Your task to perform on an android device: add a contact in the contacts app Image 0: 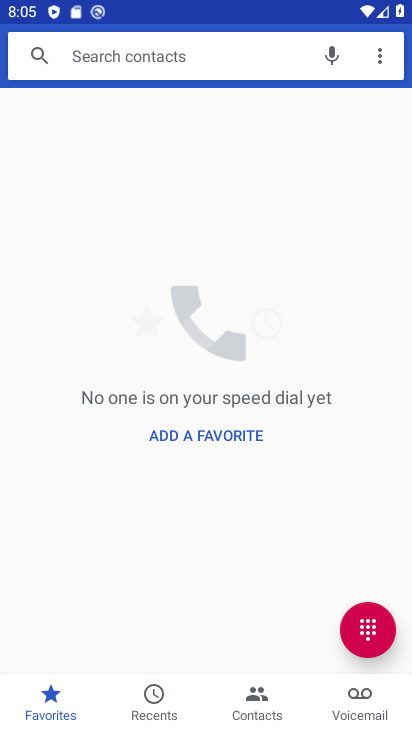
Step 0: press home button
Your task to perform on an android device: add a contact in the contacts app Image 1: 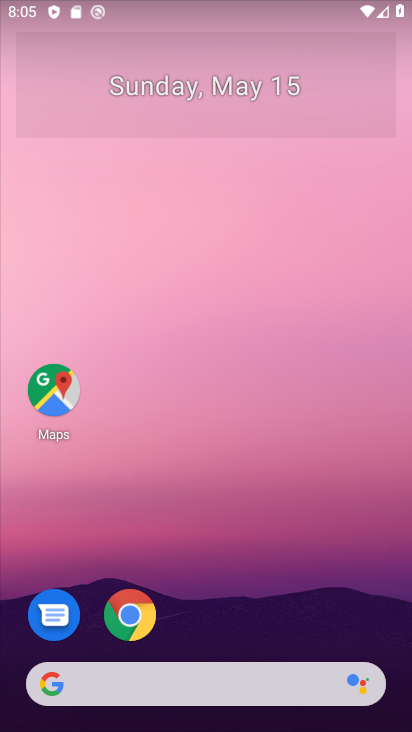
Step 1: drag from (203, 641) to (197, 136)
Your task to perform on an android device: add a contact in the contacts app Image 2: 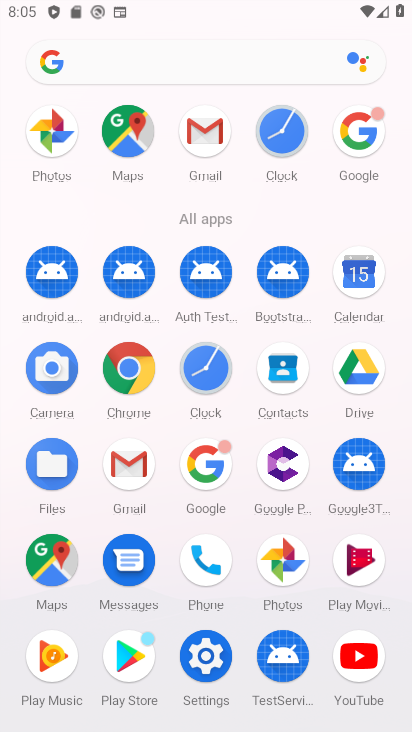
Step 2: click (272, 363)
Your task to perform on an android device: add a contact in the contacts app Image 3: 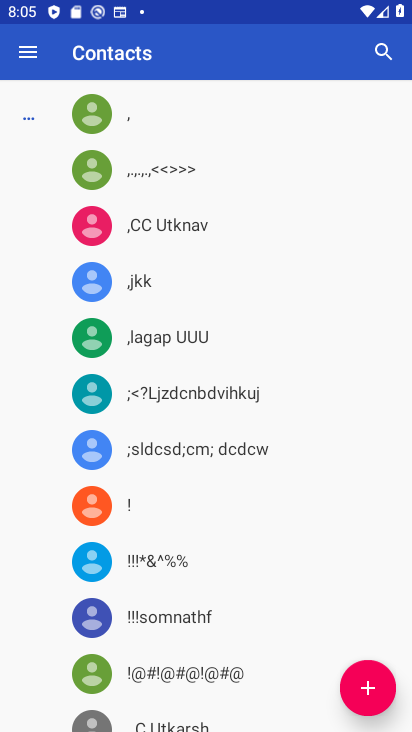
Step 3: click (367, 690)
Your task to perform on an android device: add a contact in the contacts app Image 4: 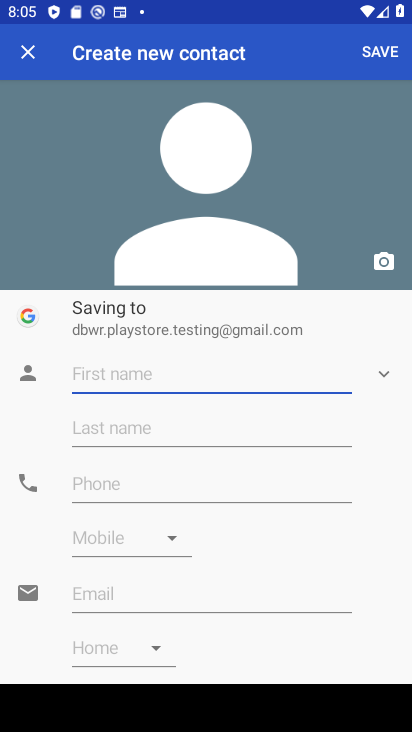
Step 4: type "lucky"
Your task to perform on an android device: add a contact in the contacts app Image 5: 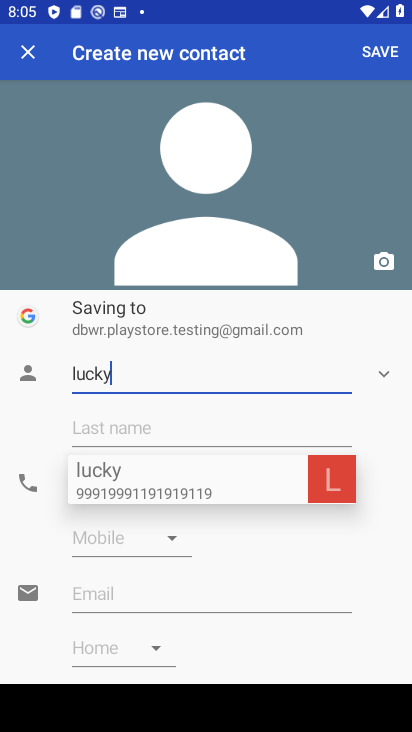
Step 5: click (120, 432)
Your task to perform on an android device: add a contact in the contacts app Image 6: 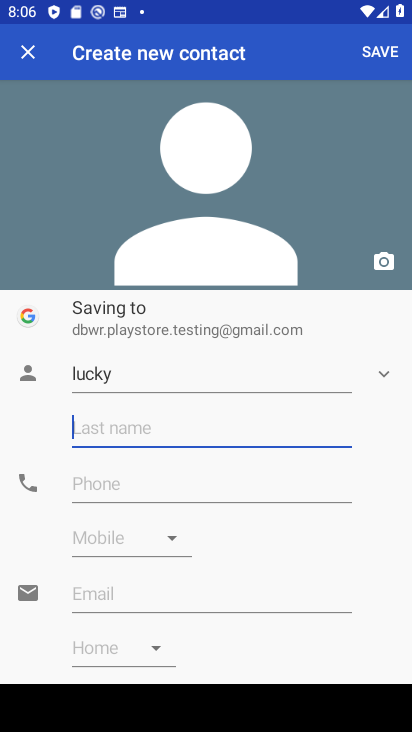
Step 6: type "lupi"
Your task to perform on an android device: add a contact in the contacts app Image 7: 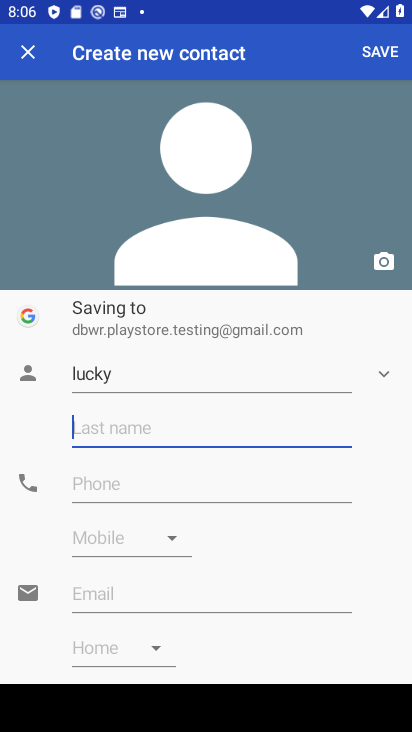
Step 7: click (101, 473)
Your task to perform on an android device: add a contact in the contacts app Image 8: 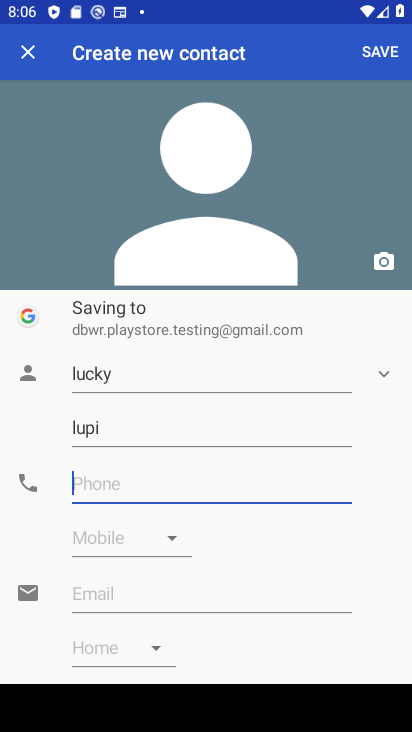
Step 8: type "7876757473"
Your task to perform on an android device: add a contact in the contacts app Image 9: 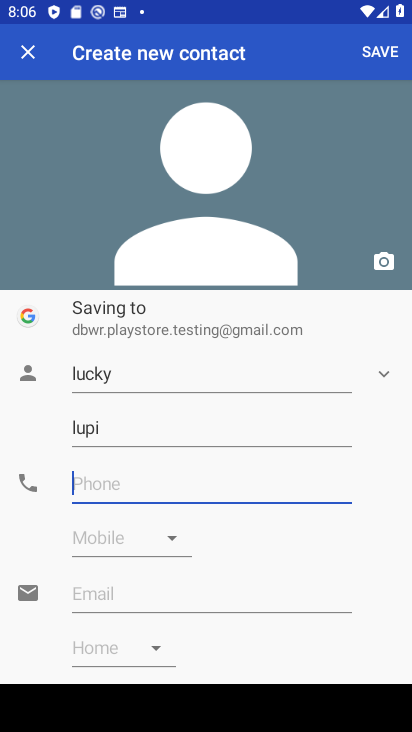
Step 9: click (110, 481)
Your task to perform on an android device: add a contact in the contacts app Image 10: 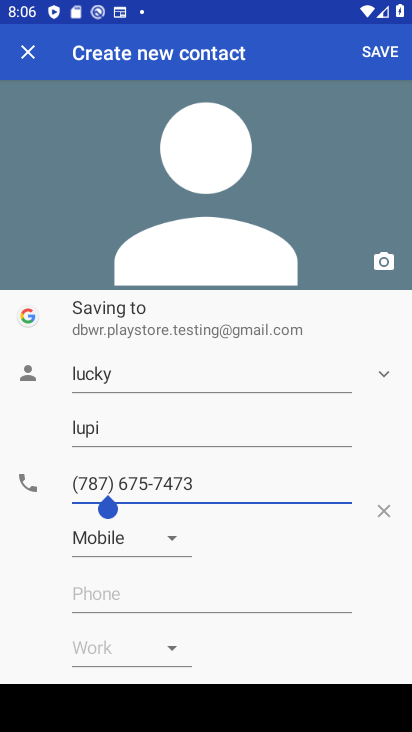
Step 10: click (381, 56)
Your task to perform on an android device: add a contact in the contacts app Image 11: 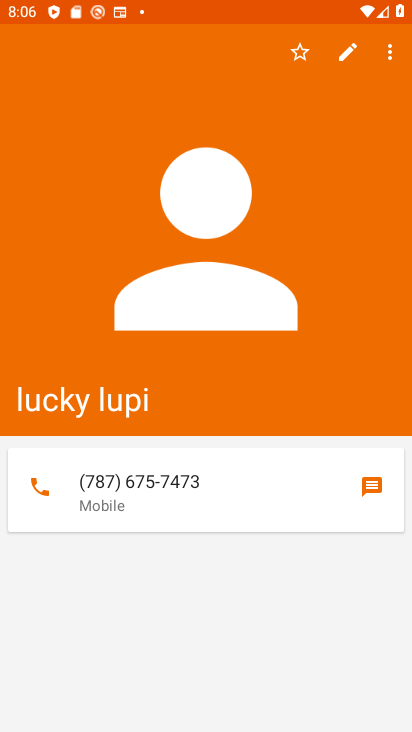
Step 11: task complete